Your task to perform on an android device: turn off location Image 0: 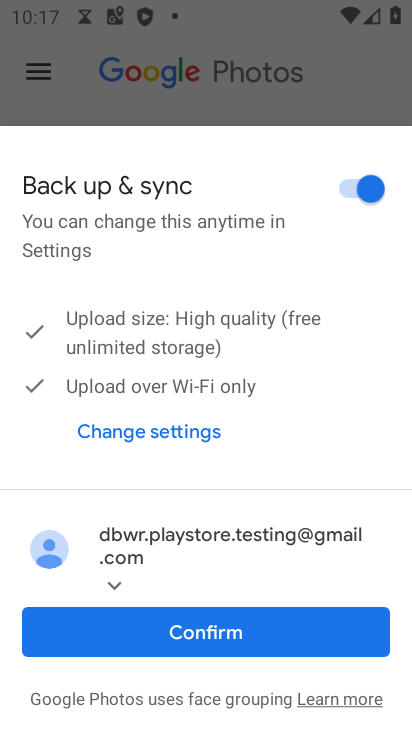
Step 0: press home button
Your task to perform on an android device: turn off location Image 1: 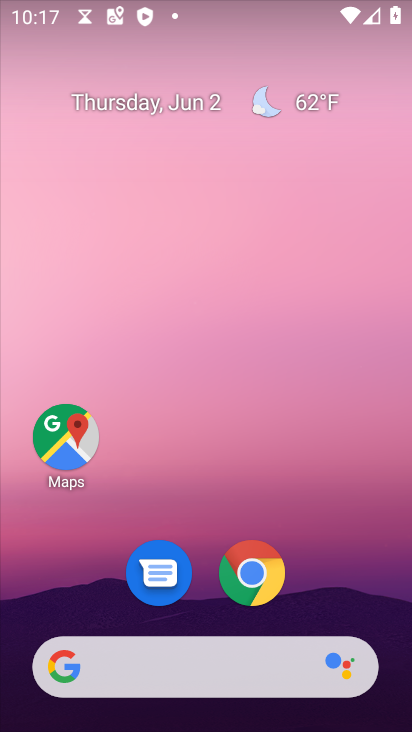
Step 1: drag from (329, 582) to (230, 187)
Your task to perform on an android device: turn off location Image 2: 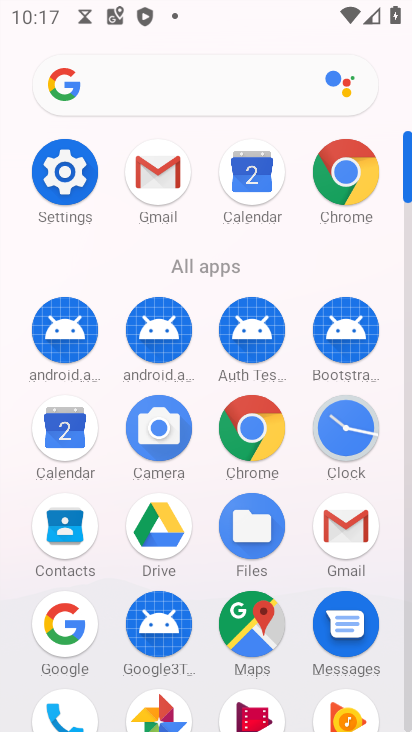
Step 2: click (66, 171)
Your task to perform on an android device: turn off location Image 3: 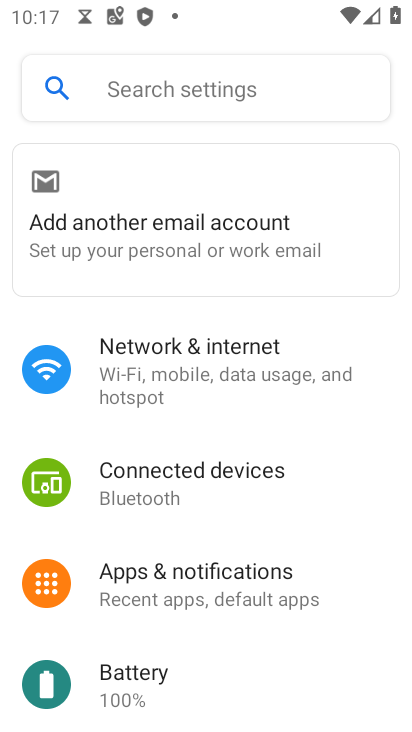
Step 3: drag from (210, 516) to (270, 381)
Your task to perform on an android device: turn off location Image 4: 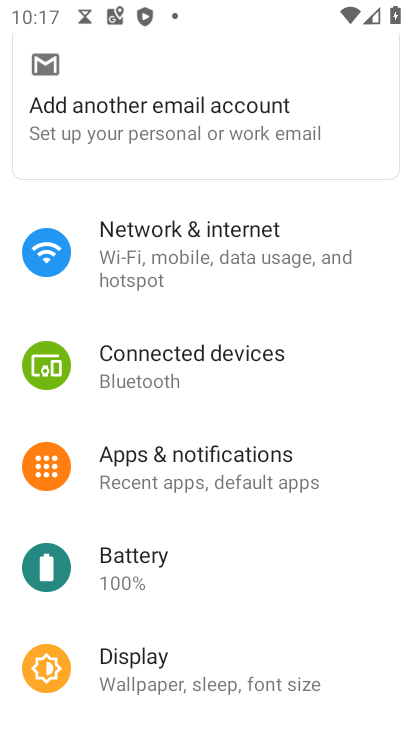
Step 4: drag from (203, 513) to (256, 350)
Your task to perform on an android device: turn off location Image 5: 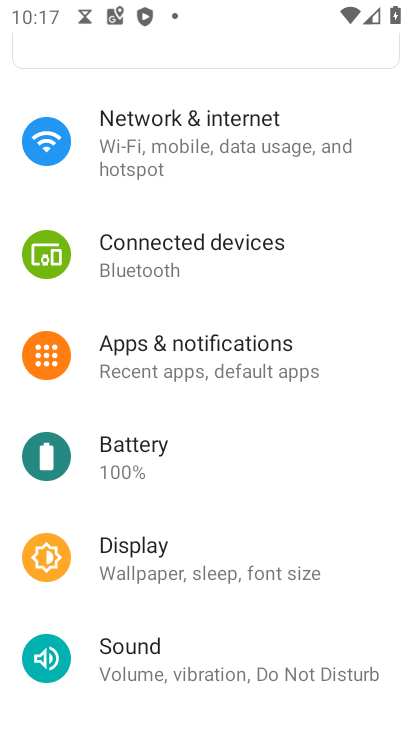
Step 5: drag from (211, 518) to (244, 364)
Your task to perform on an android device: turn off location Image 6: 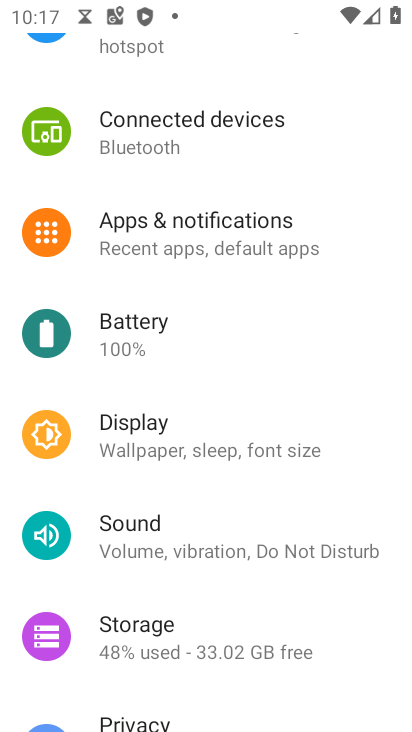
Step 6: drag from (207, 523) to (229, 397)
Your task to perform on an android device: turn off location Image 7: 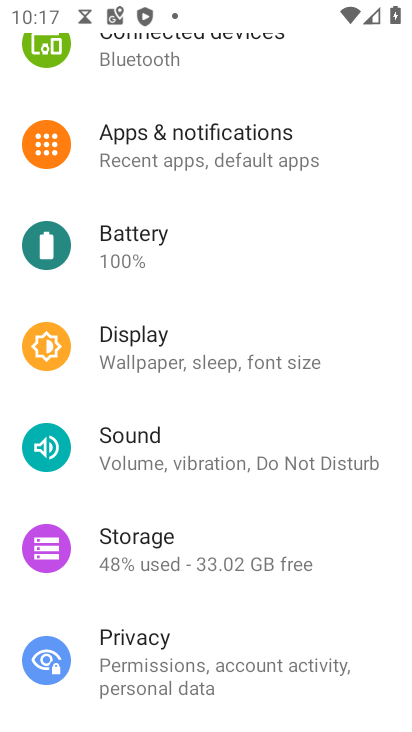
Step 7: drag from (206, 606) to (300, 401)
Your task to perform on an android device: turn off location Image 8: 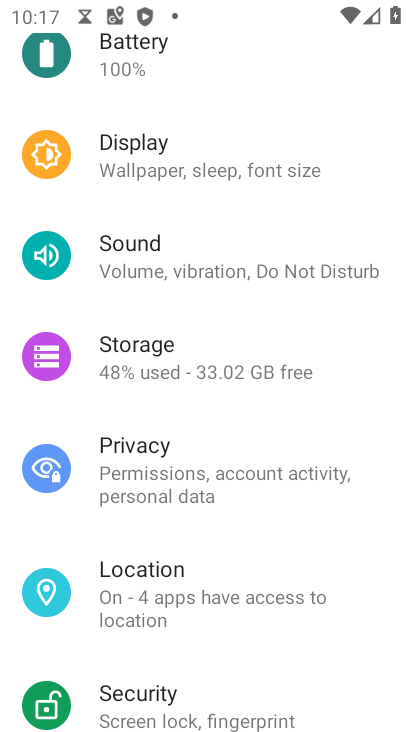
Step 8: click (187, 587)
Your task to perform on an android device: turn off location Image 9: 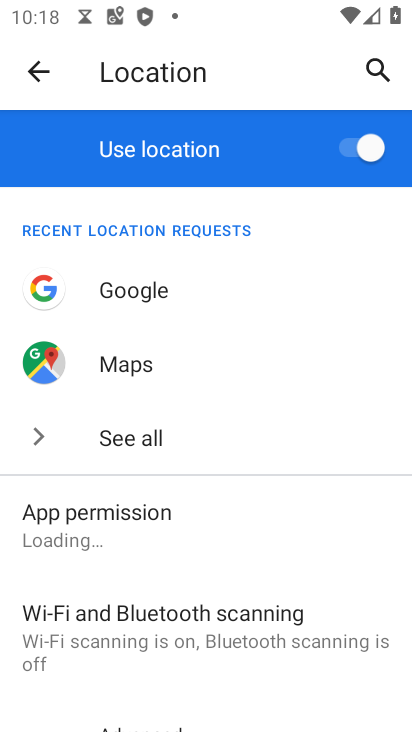
Step 9: click (347, 148)
Your task to perform on an android device: turn off location Image 10: 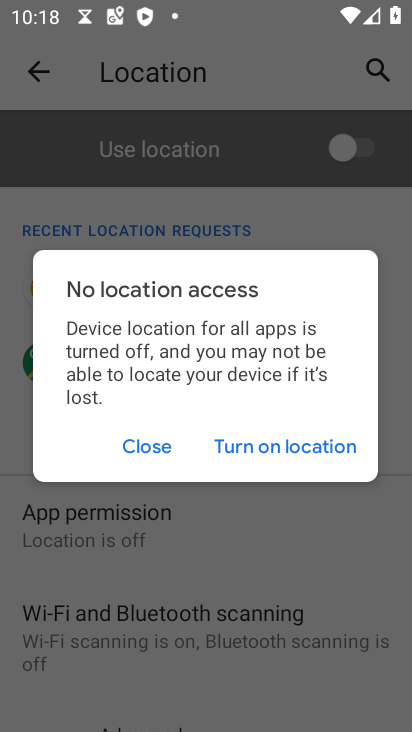
Step 10: click (165, 443)
Your task to perform on an android device: turn off location Image 11: 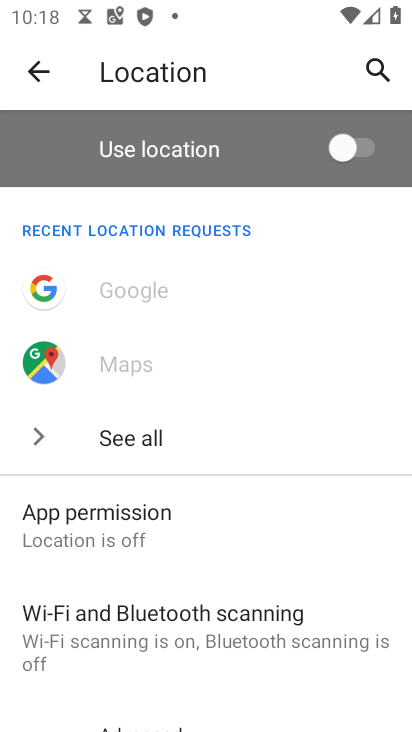
Step 11: task complete